Your task to perform on an android device: Show me popular games on the Play Store Image 0: 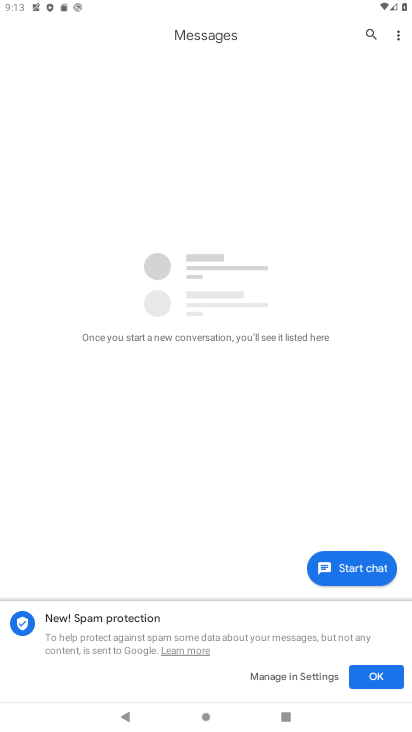
Step 0: press home button
Your task to perform on an android device: Show me popular games on the Play Store Image 1: 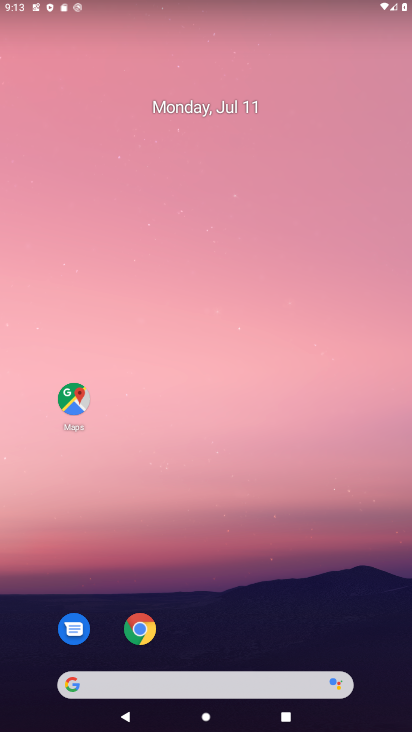
Step 1: drag from (27, 704) to (146, 108)
Your task to perform on an android device: Show me popular games on the Play Store Image 2: 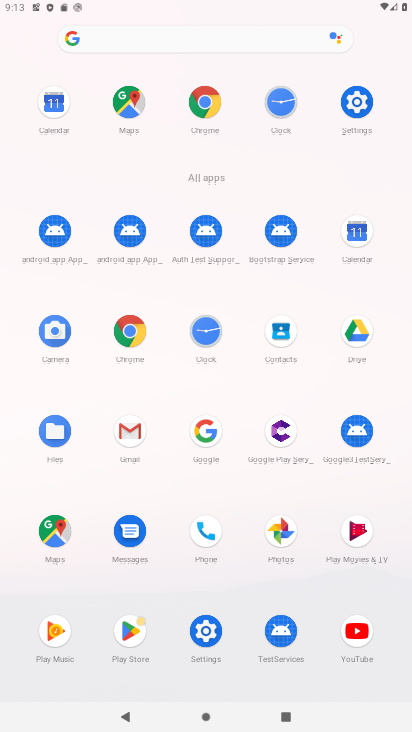
Step 2: click (133, 642)
Your task to perform on an android device: Show me popular games on the Play Store Image 3: 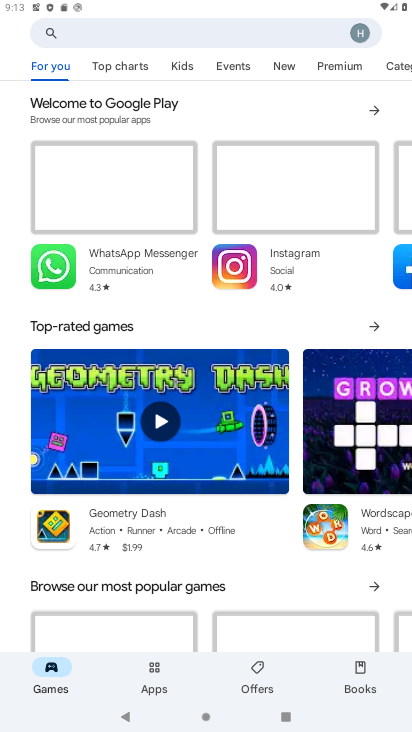
Step 3: click (105, 36)
Your task to perform on an android device: Show me popular games on the Play Store Image 4: 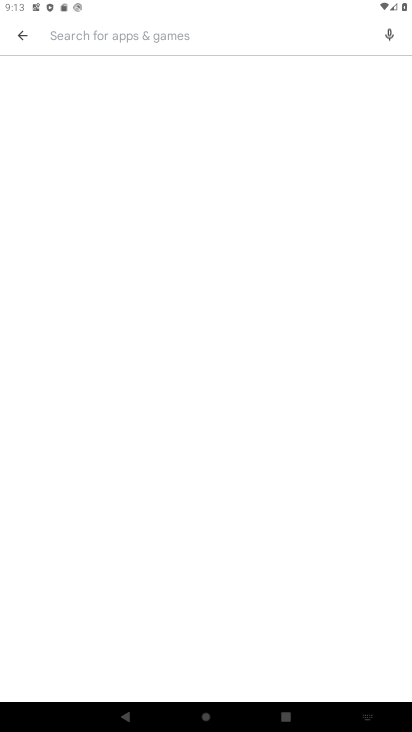
Step 4: type "popular games"
Your task to perform on an android device: Show me popular games on the Play Store Image 5: 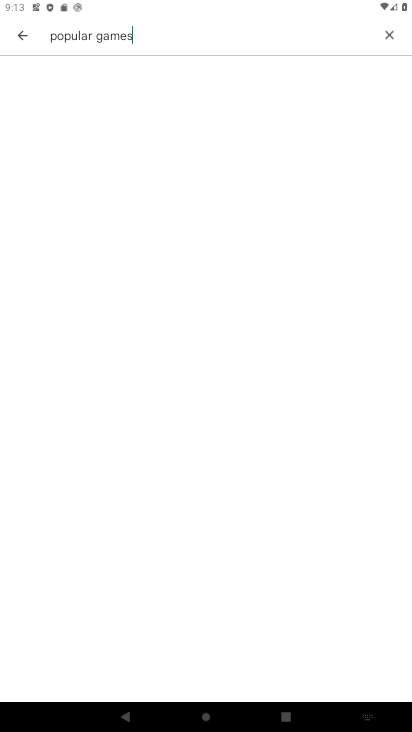
Step 5: type ""
Your task to perform on an android device: Show me popular games on the Play Store Image 6: 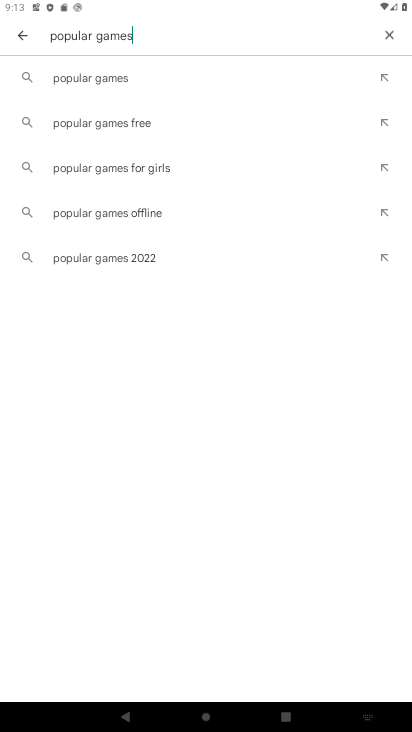
Step 6: click (99, 90)
Your task to perform on an android device: Show me popular games on the Play Store Image 7: 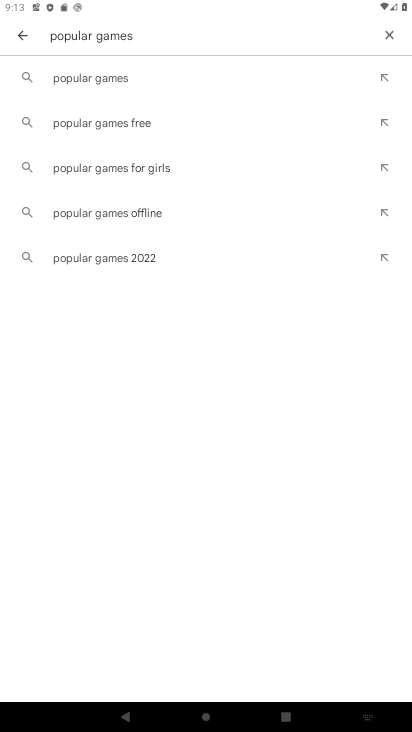
Step 7: click (99, 67)
Your task to perform on an android device: Show me popular games on the Play Store Image 8: 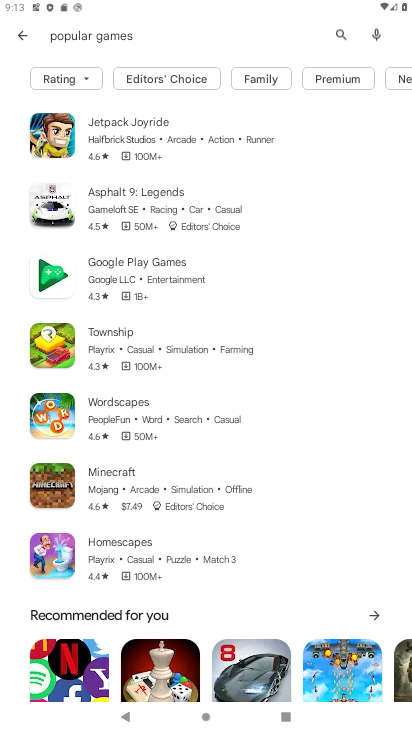
Step 8: task complete